Your task to perform on an android device: turn on javascript in the chrome app Image 0: 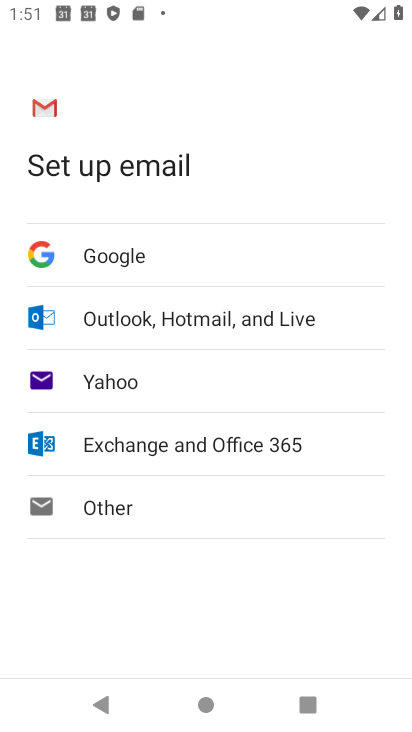
Step 0: press home button
Your task to perform on an android device: turn on javascript in the chrome app Image 1: 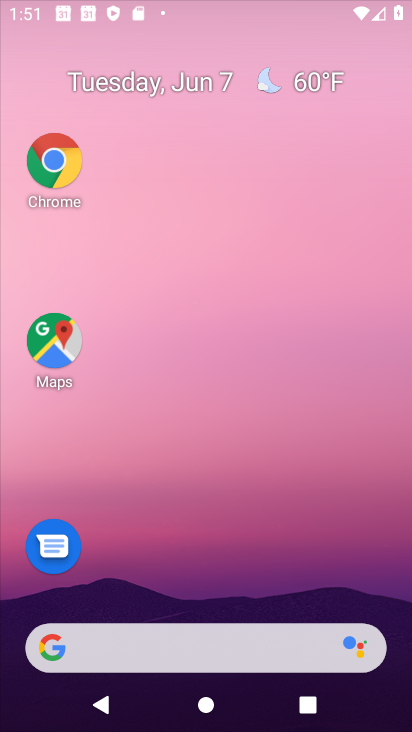
Step 1: drag from (142, 503) to (294, 95)
Your task to perform on an android device: turn on javascript in the chrome app Image 2: 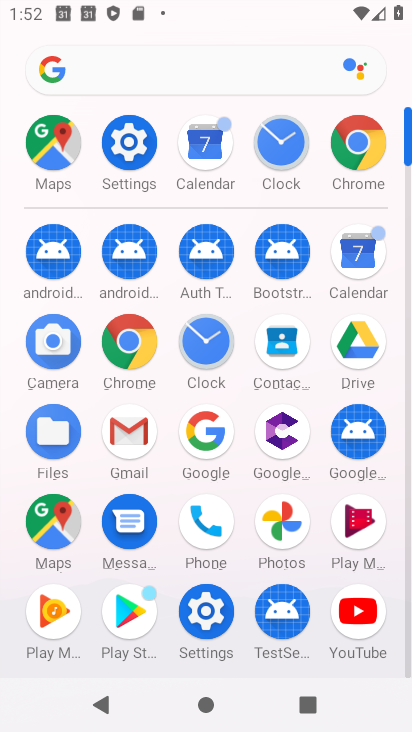
Step 2: click (126, 366)
Your task to perform on an android device: turn on javascript in the chrome app Image 3: 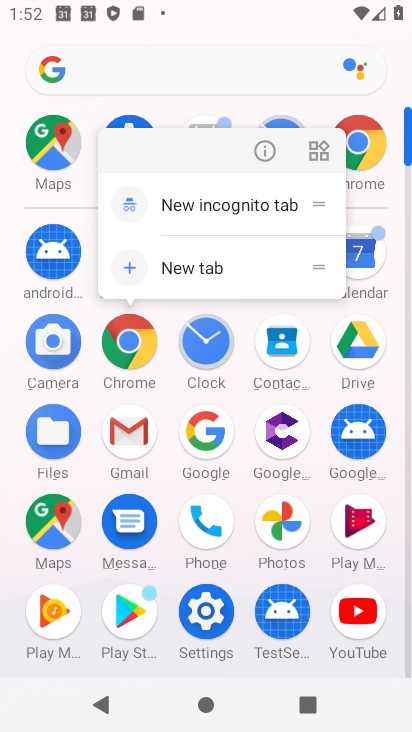
Step 3: click (266, 143)
Your task to perform on an android device: turn on javascript in the chrome app Image 4: 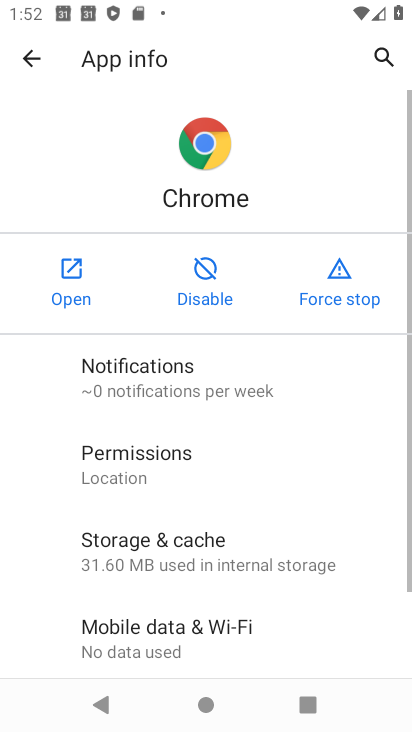
Step 4: click (76, 247)
Your task to perform on an android device: turn on javascript in the chrome app Image 5: 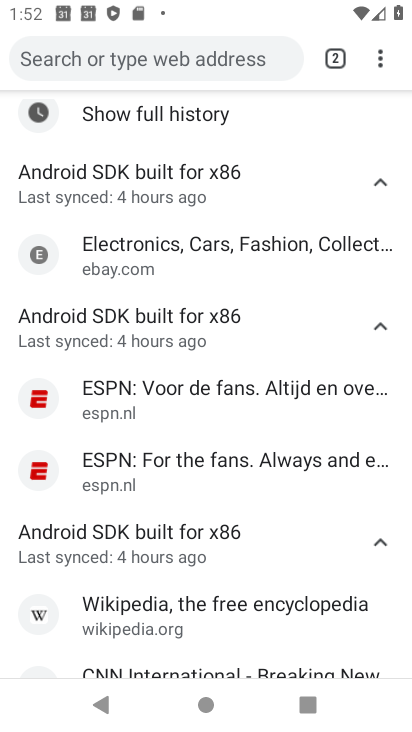
Step 5: drag from (198, 262) to (278, 652)
Your task to perform on an android device: turn on javascript in the chrome app Image 6: 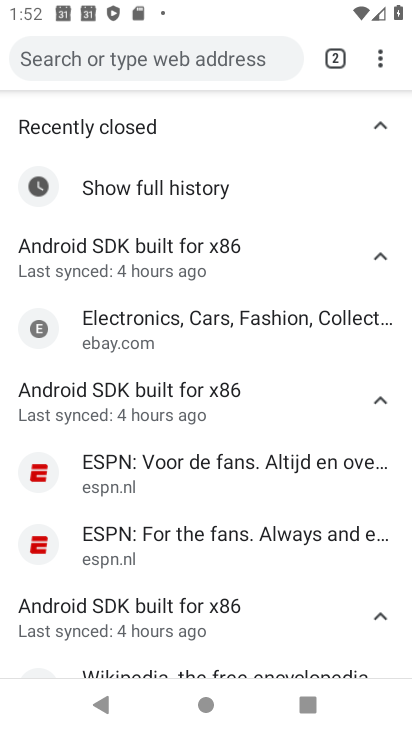
Step 6: drag from (394, 56) to (211, 479)
Your task to perform on an android device: turn on javascript in the chrome app Image 7: 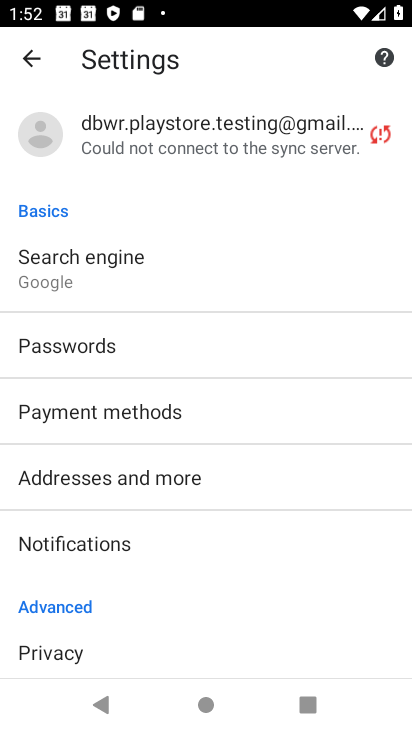
Step 7: drag from (172, 589) to (298, 161)
Your task to perform on an android device: turn on javascript in the chrome app Image 8: 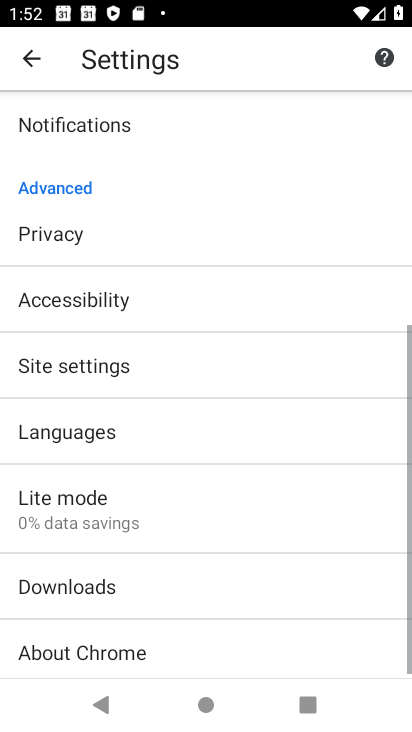
Step 8: click (132, 371)
Your task to perform on an android device: turn on javascript in the chrome app Image 9: 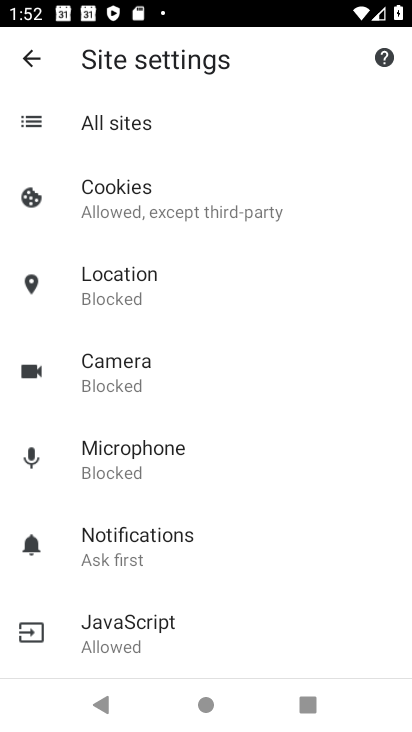
Step 9: click (161, 617)
Your task to perform on an android device: turn on javascript in the chrome app Image 10: 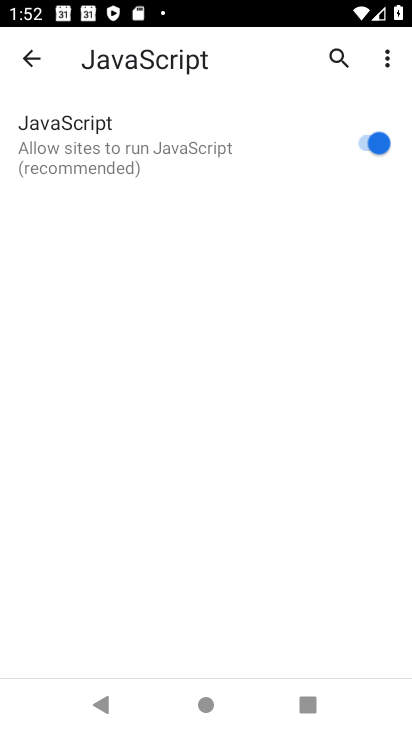
Step 10: task complete